Your task to perform on an android device: Set the phone to "Do not disturb". Image 0: 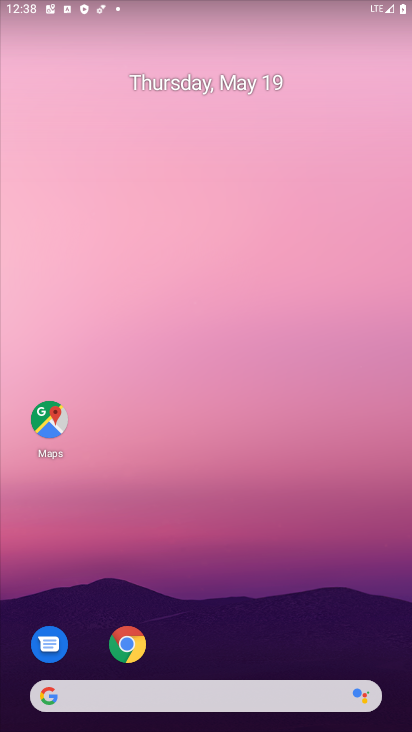
Step 0: drag from (325, 623) to (285, 99)
Your task to perform on an android device: Set the phone to "Do not disturb". Image 1: 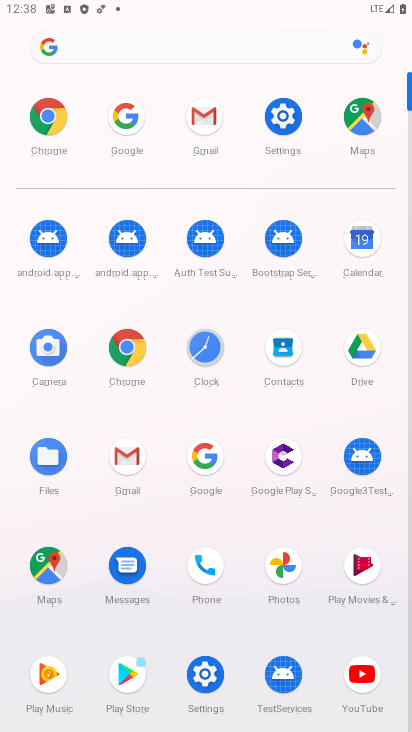
Step 1: drag from (215, 3) to (213, 368)
Your task to perform on an android device: Set the phone to "Do not disturb". Image 2: 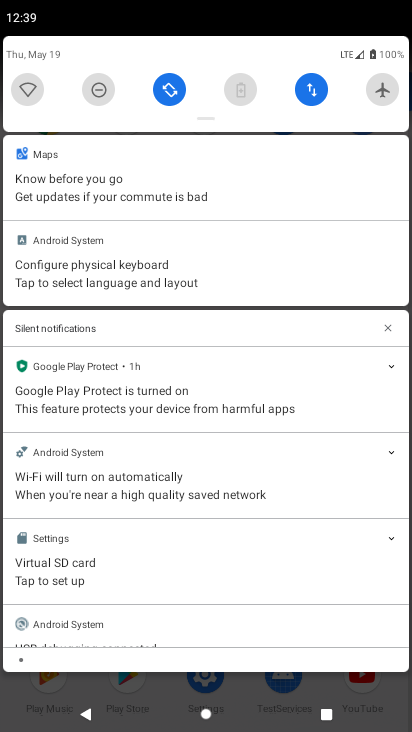
Step 2: click (97, 90)
Your task to perform on an android device: Set the phone to "Do not disturb". Image 3: 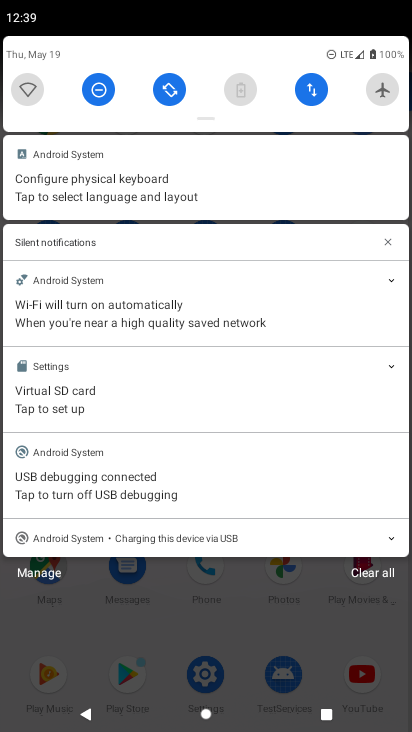
Step 3: task complete